Your task to perform on an android device: Open privacy settings Image 0: 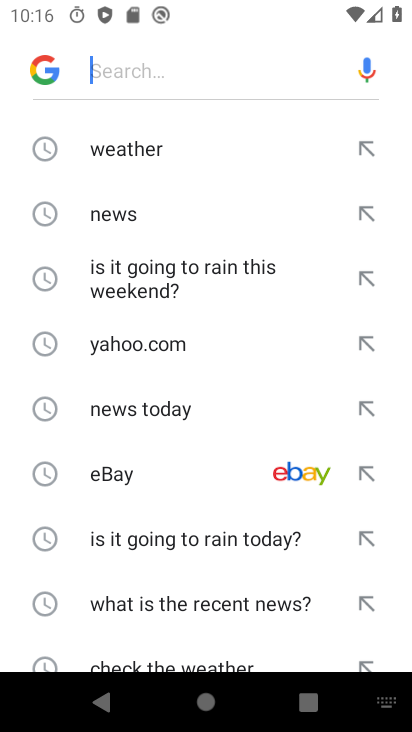
Step 0: press home button
Your task to perform on an android device: Open privacy settings Image 1: 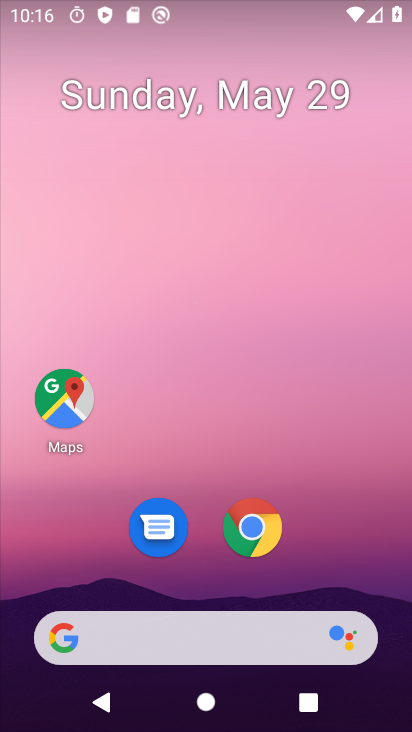
Step 1: drag from (324, 548) to (293, 183)
Your task to perform on an android device: Open privacy settings Image 2: 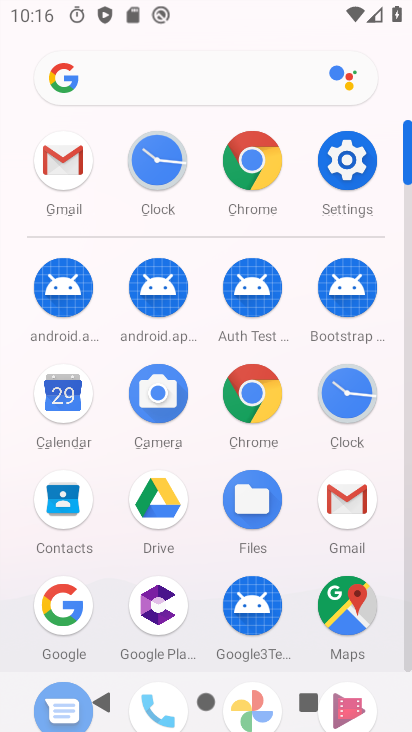
Step 2: click (348, 160)
Your task to perform on an android device: Open privacy settings Image 3: 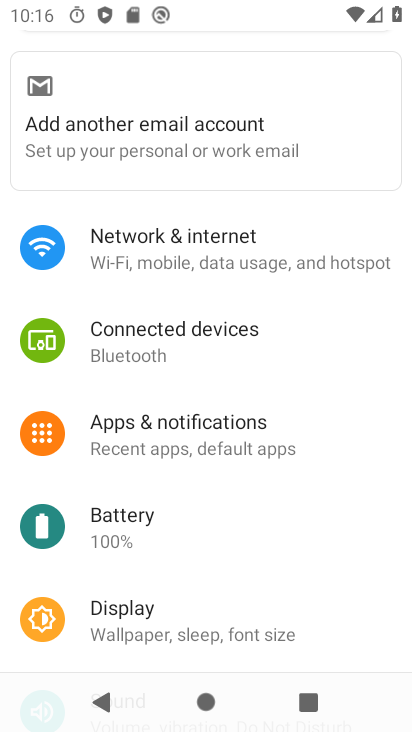
Step 3: drag from (290, 617) to (309, 128)
Your task to perform on an android device: Open privacy settings Image 4: 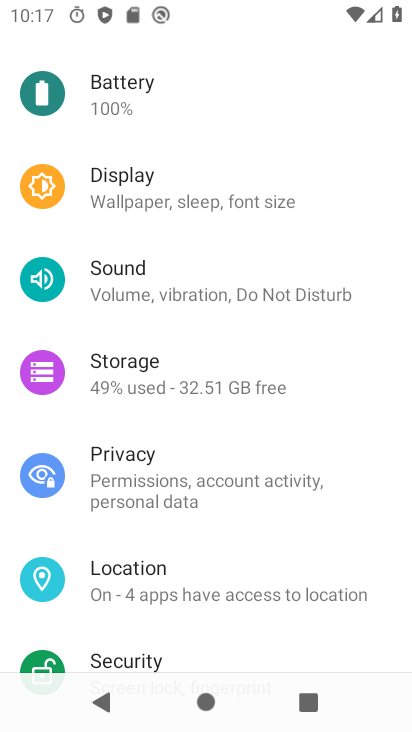
Step 4: click (185, 460)
Your task to perform on an android device: Open privacy settings Image 5: 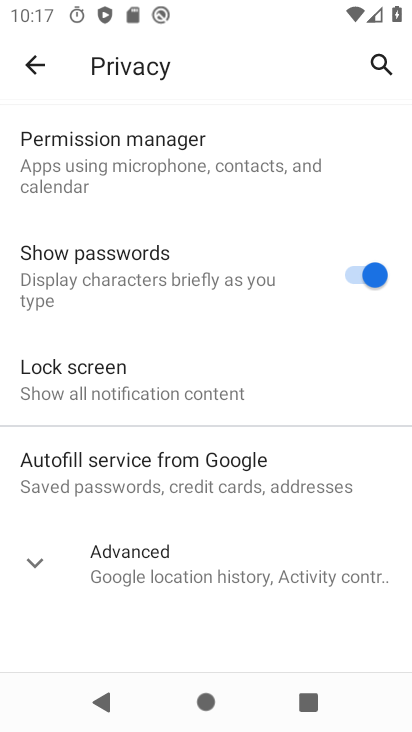
Step 5: task complete